Your task to perform on an android device: Is it going to rain this weekend? Image 0: 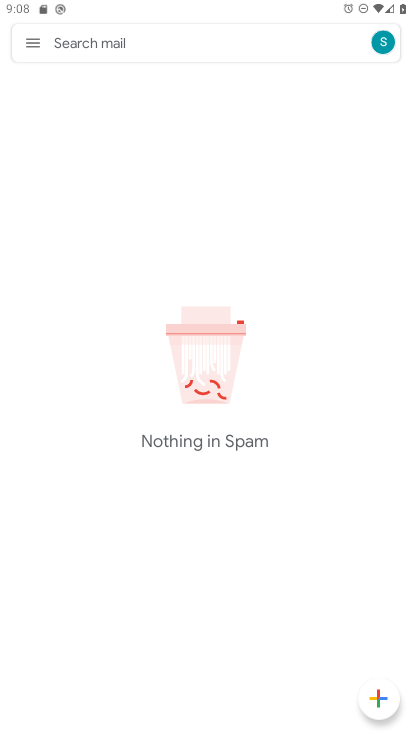
Step 0: press home button
Your task to perform on an android device: Is it going to rain this weekend? Image 1: 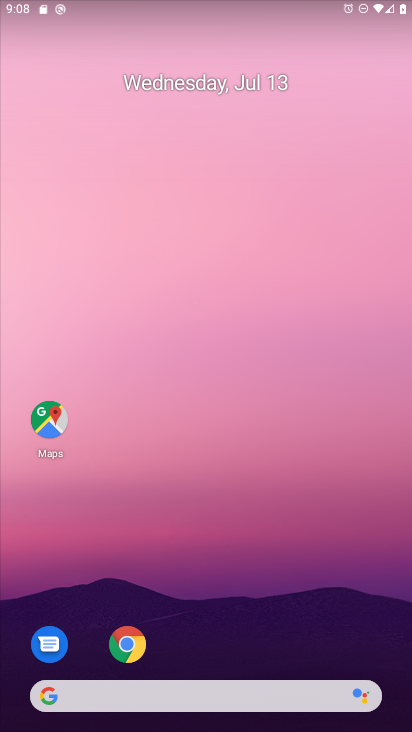
Step 1: click (248, 689)
Your task to perform on an android device: Is it going to rain this weekend? Image 2: 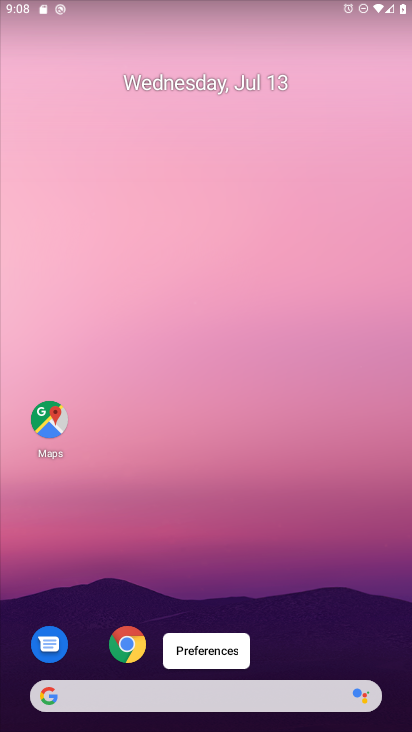
Step 2: click (112, 699)
Your task to perform on an android device: Is it going to rain this weekend? Image 3: 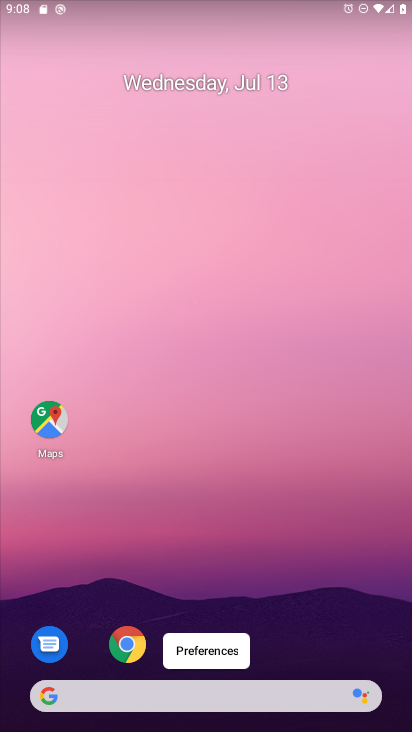
Step 3: click (52, 693)
Your task to perform on an android device: Is it going to rain this weekend? Image 4: 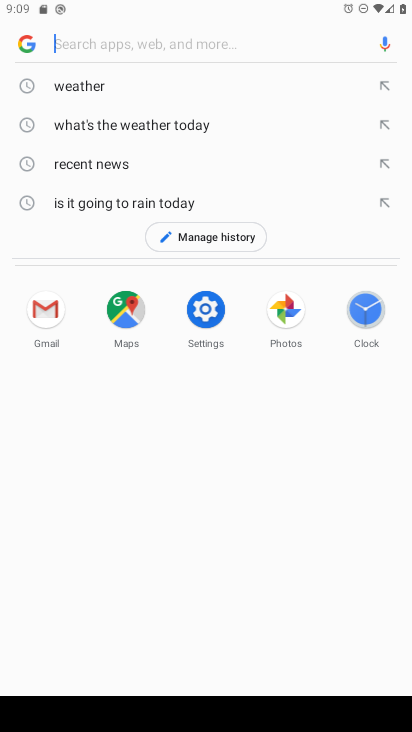
Step 4: type "Is it going to rain this weekend?"
Your task to perform on an android device: Is it going to rain this weekend? Image 5: 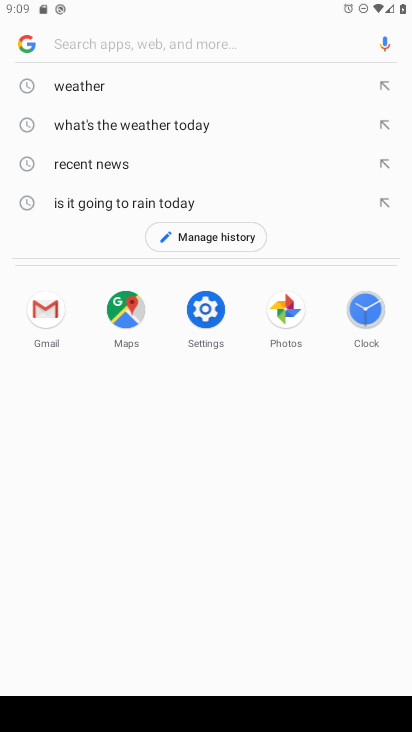
Step 5: click (228, 33)
Your task to perform on an android device: Is it going to rain this weekend? Image 6: 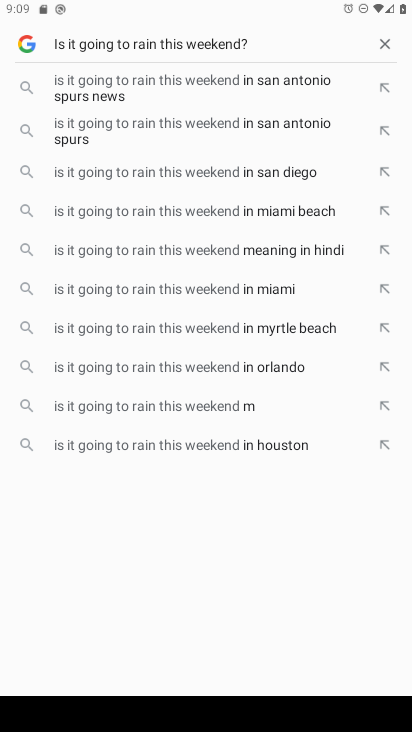
Step 6: press enter
Your task to perform on an android device: Is it going to rain this weekend? Image 7: 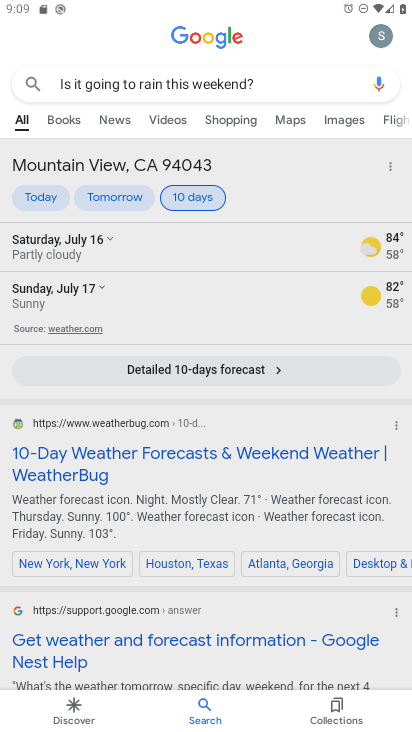
Step 7: task complete